Your task to perform on an android device: open app "ZOOM Cloud Meetings" (install if not already installed) and go to login screen Image 0: 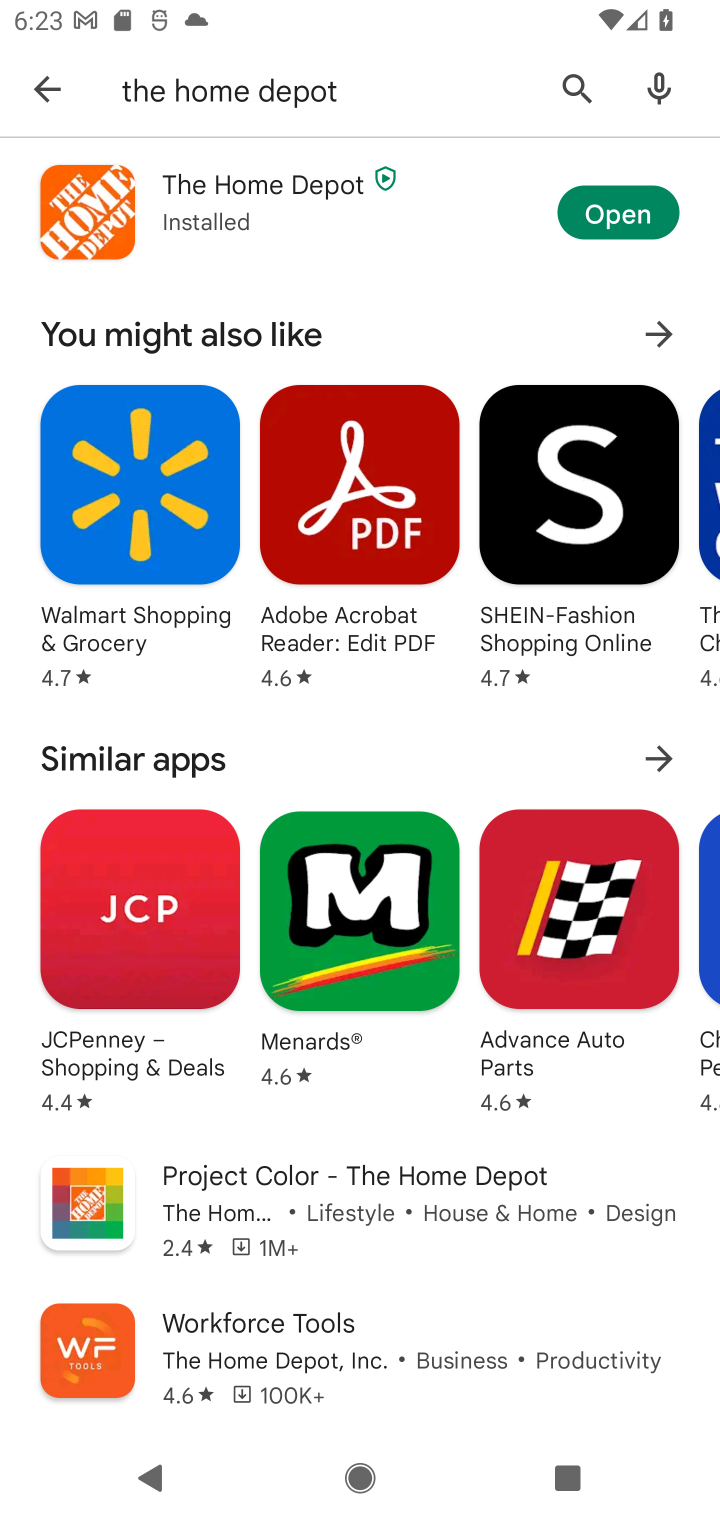
Step 0: click (591, 204)
Your task to perform on an android device: open app "ZOOM Cloud Meetings" (install if not already installed) and go to login screen Image 1: 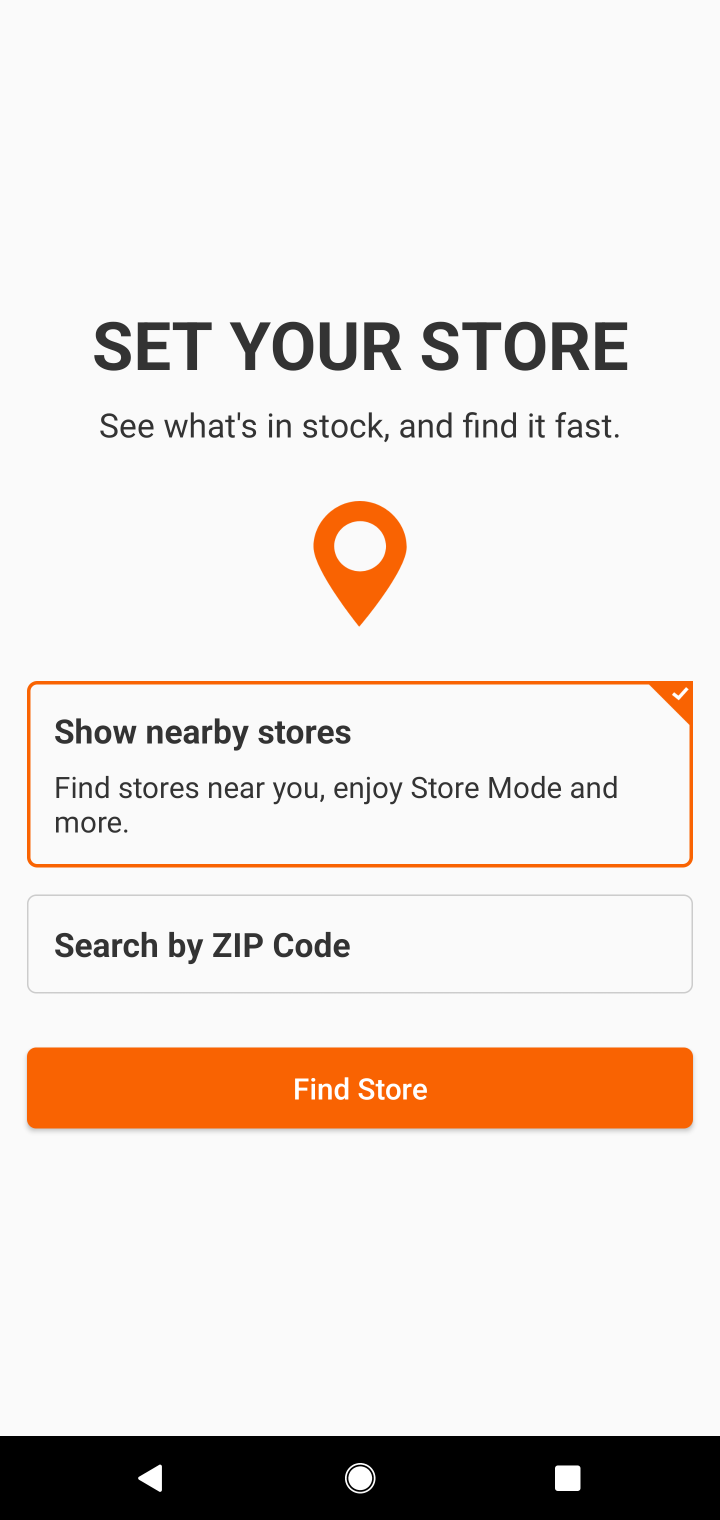
Step 1: task complete